Your task to perform on an android device: See recent photos Image 0: 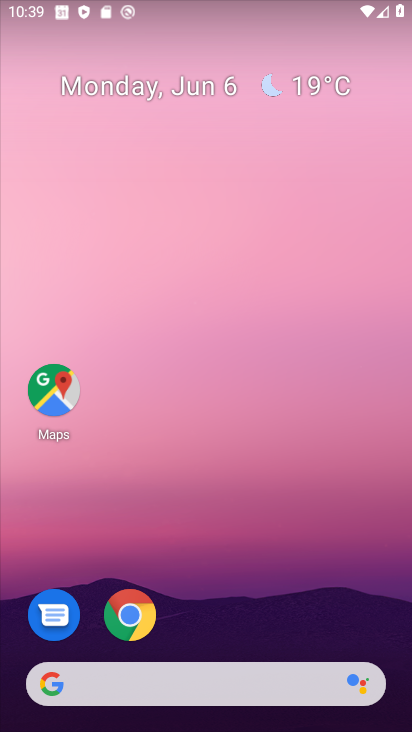
Step 0: drag from (290, 616) to (254, 41)
Your task to perform on an android device: See recent photos Image 1: 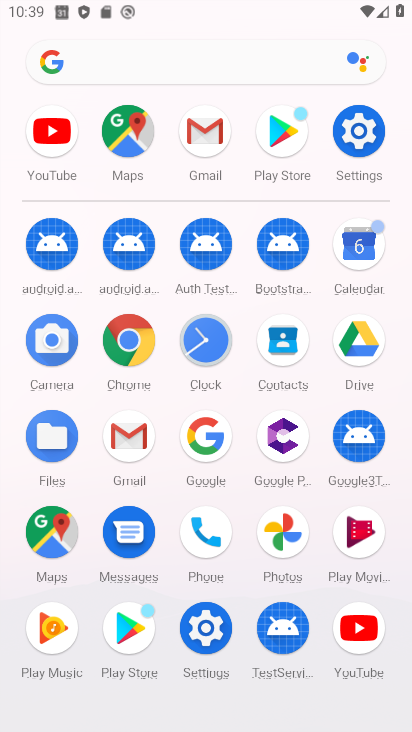
Step 1: click (285, 538)
Your task to perform on an android device: See recent photos Image 2: 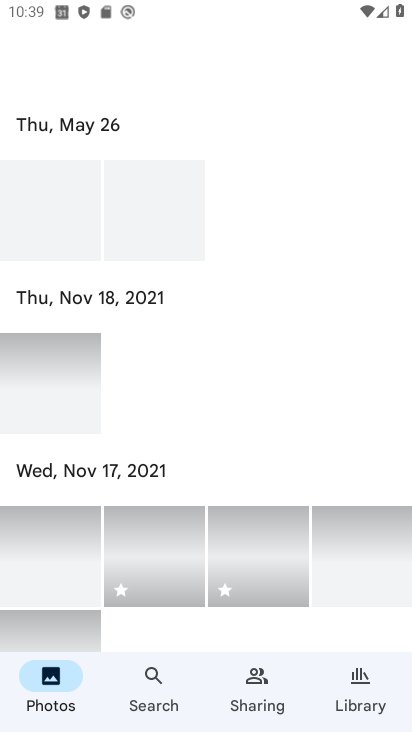
Step 2: task complete